Your task to perform on an android device: move a message to another label in the gmail app Image 0: 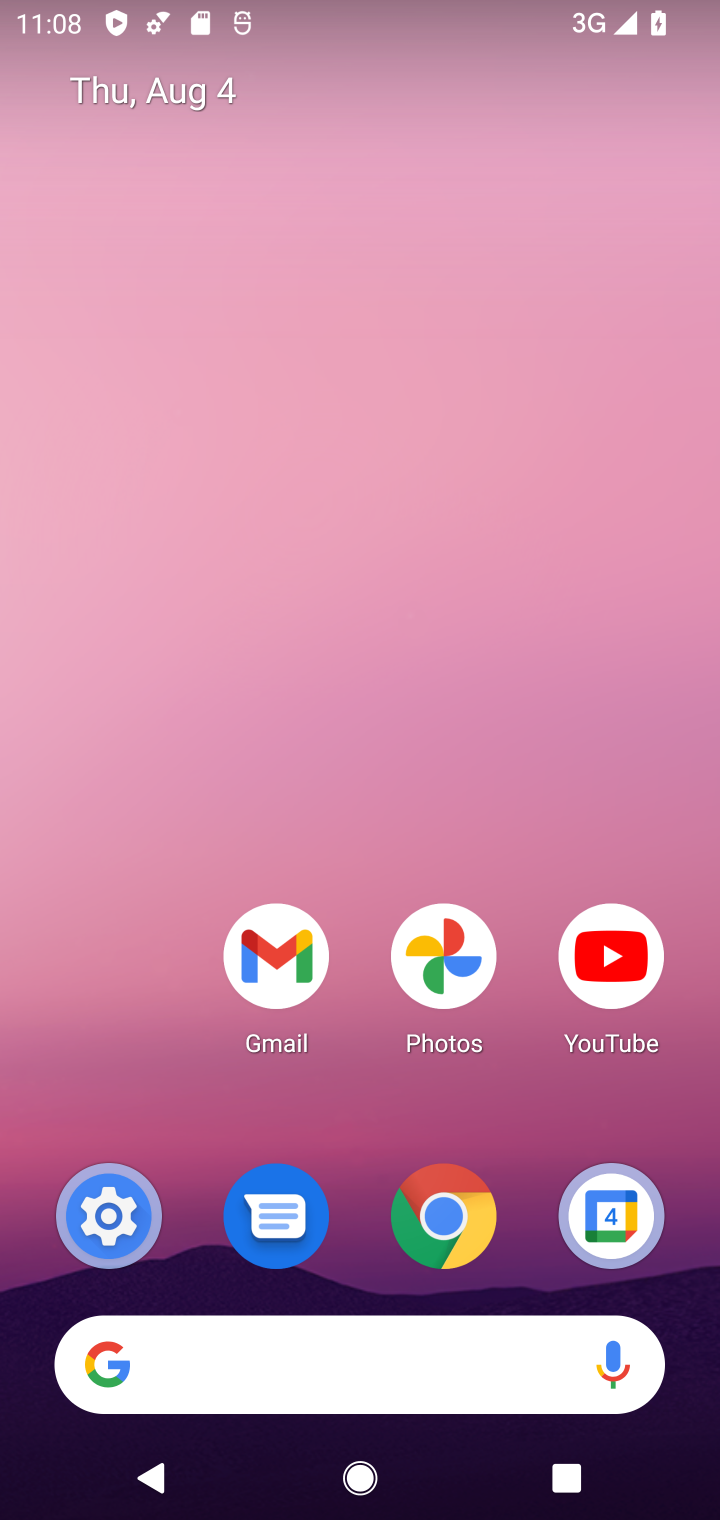
Step 0: click (280, 969)
Your task to perform on an android device: move a message to another label in the gmail app Image 1: 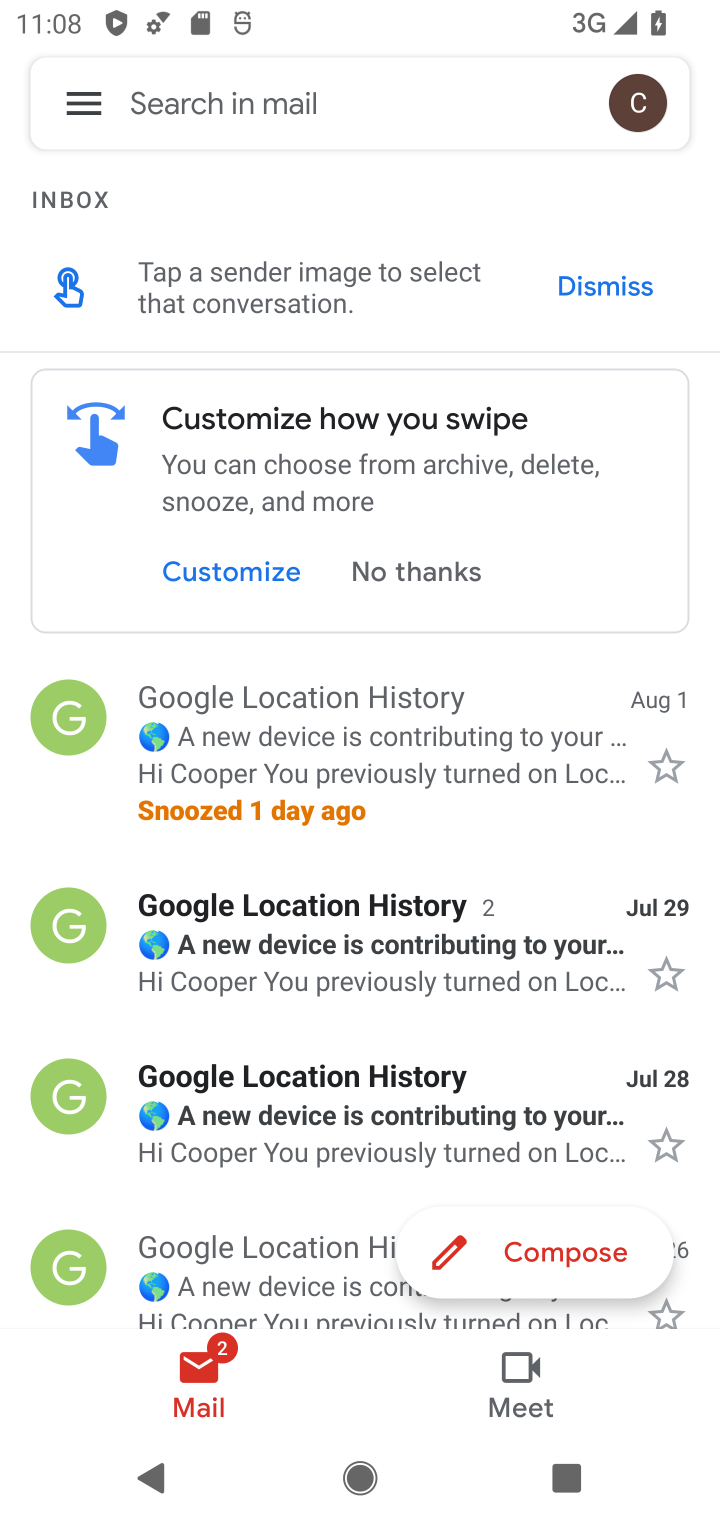
Step 1: click (406, 948)
Your task to perform on an android device: move a message to another label in the gmail app Image 2: 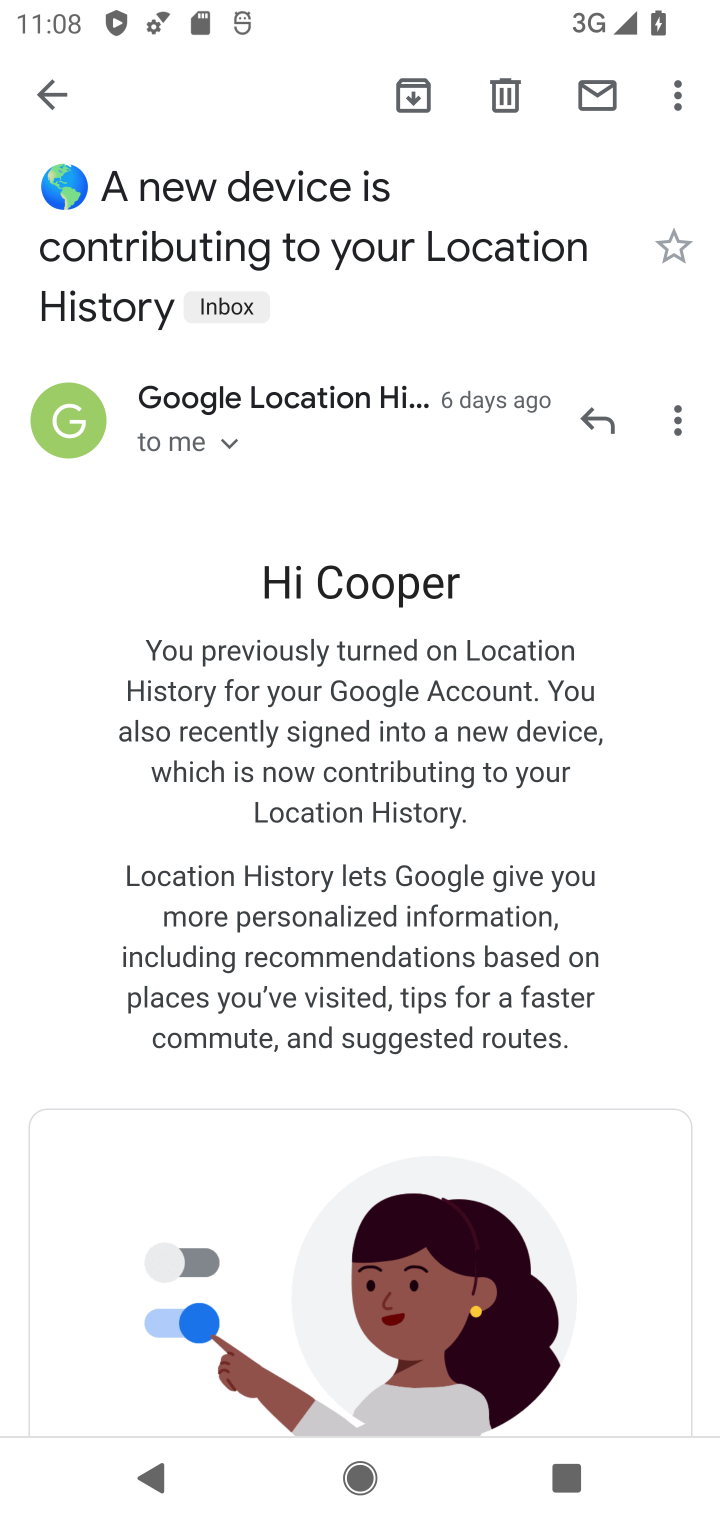
Step 2: click (668, 98)
Your task to perform on an android device: move a message to another label in the gmail app Image 3: 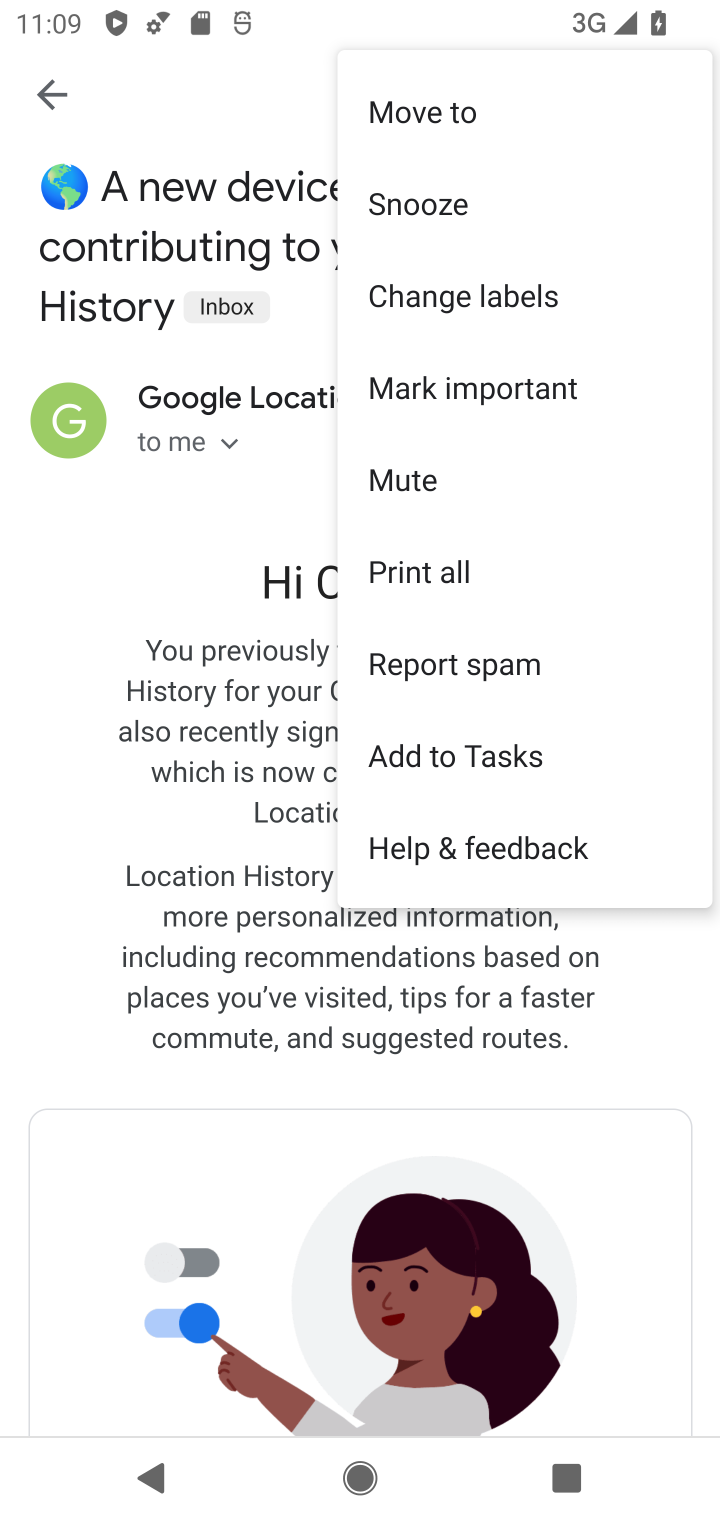
Step 3: click (539, 384)
Your task to perform on an android device: move a message to another label in the gmail app Image 4: 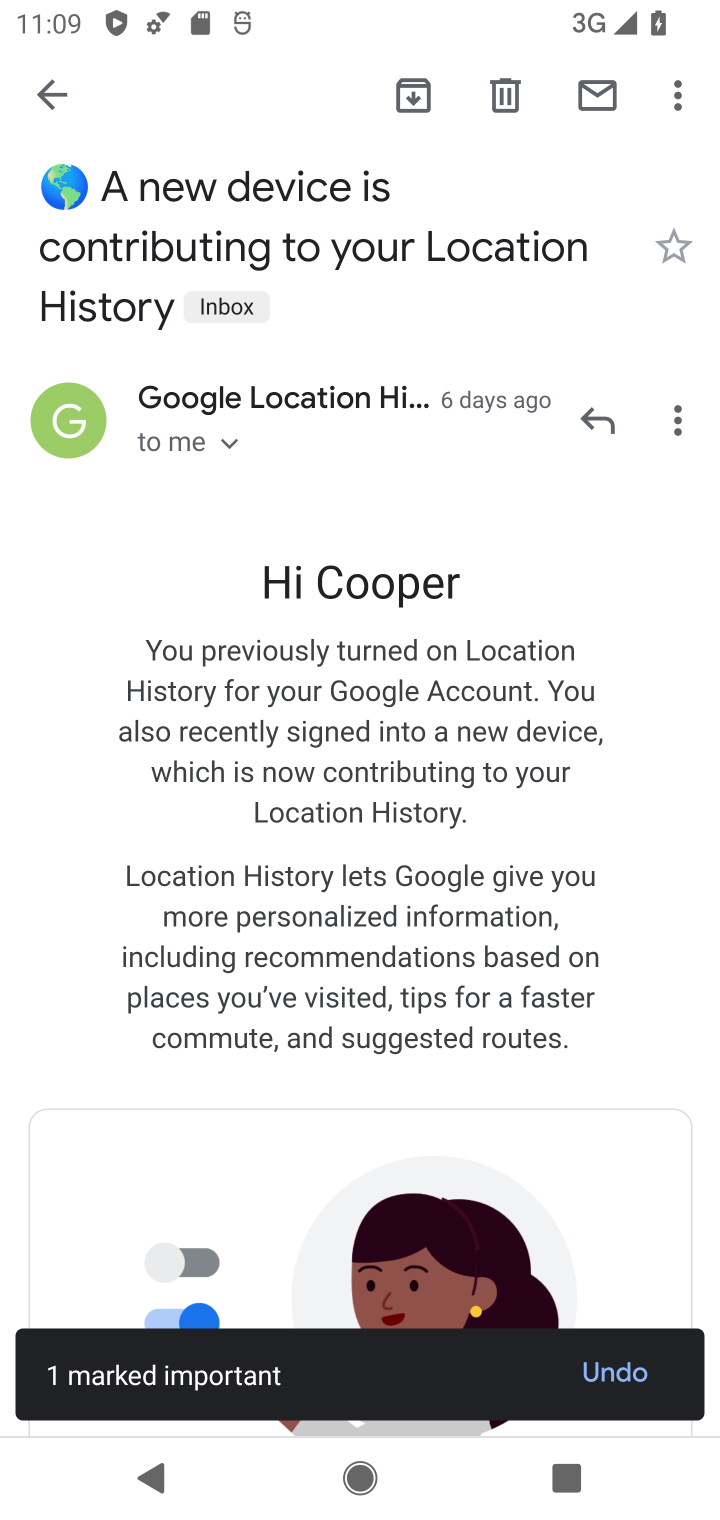
Step 4: task complete